Your task to perform on an android device: check battery use Image 0: 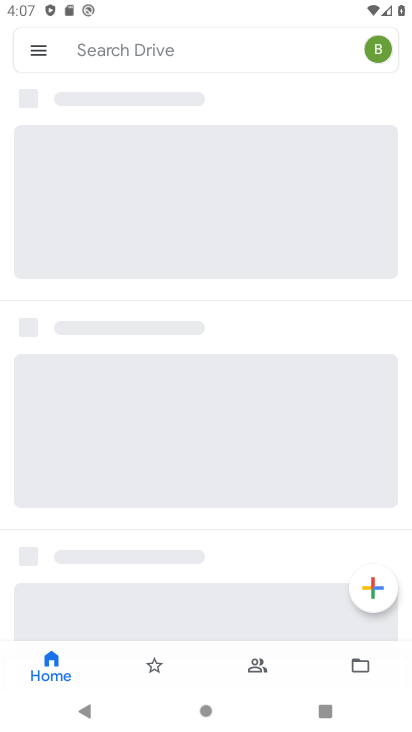
Step 0: press back button
Your task to perform on an android device: check battery use Image 1: 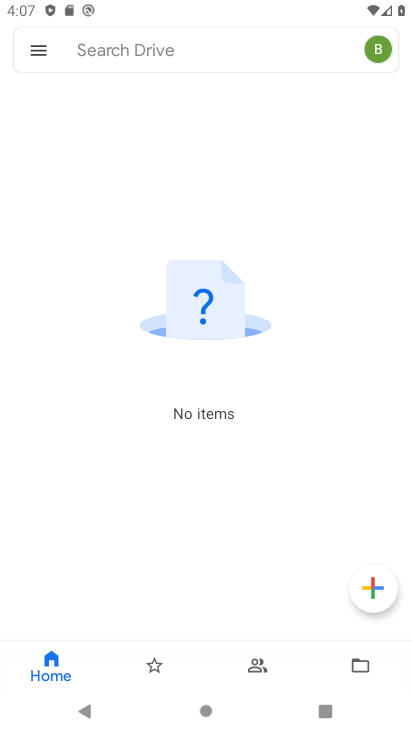
Step 1: press back button
Your task to perform on an android device: check battery use Image 2: 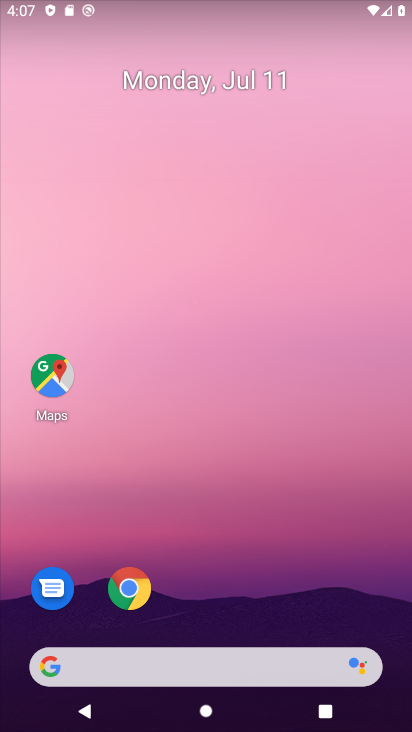
Step 2: press home button
Your task to perform on an android device: check battery use Image 3: 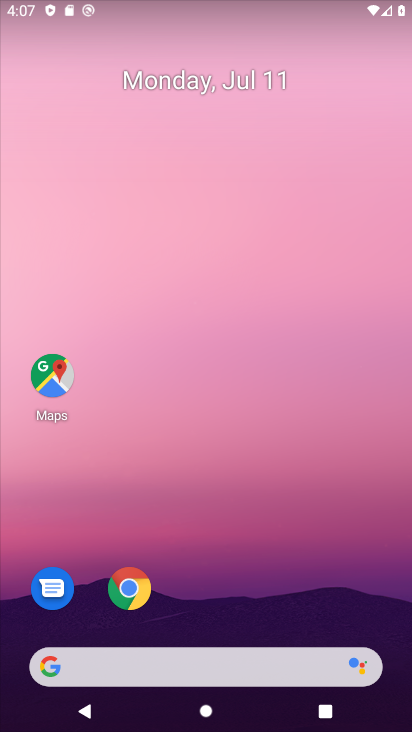
Step 3: drag from (259, 506) to (252, 89)
Your task to perform on an android device: check battery use Image 4: 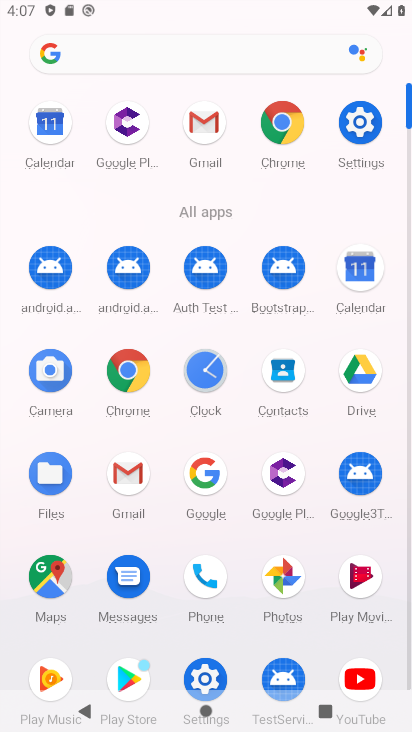
Step 4: click (356, 127)
Your task to perform on an android device: check battery use Image 5: 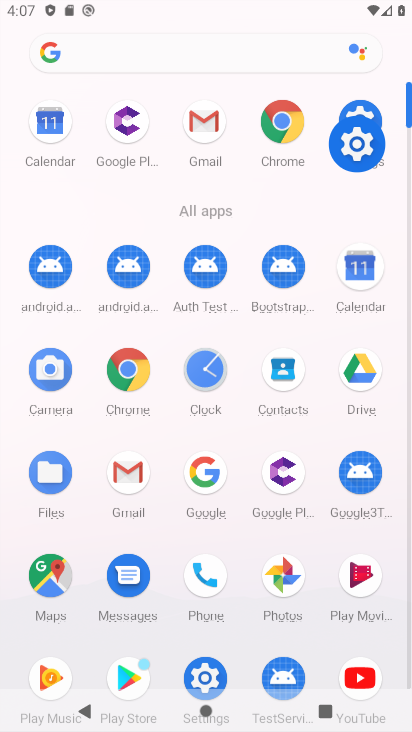
Step 5: click (356, 127)
Your task to perform on an android device: check battery use Image 6: 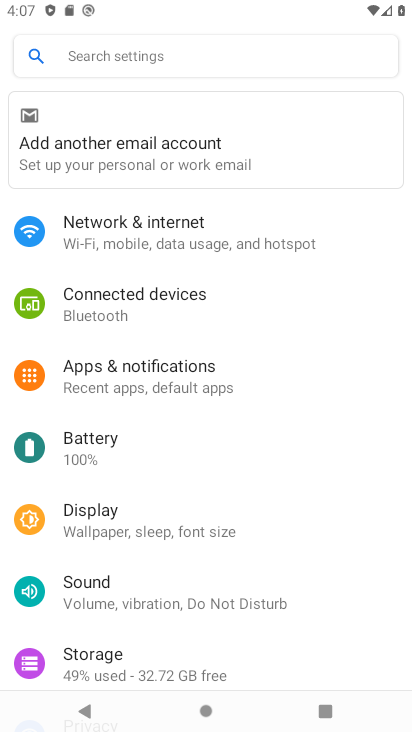
Step 6: click (97, 452)
Your task to perform on an android device: check battery use Image 7: 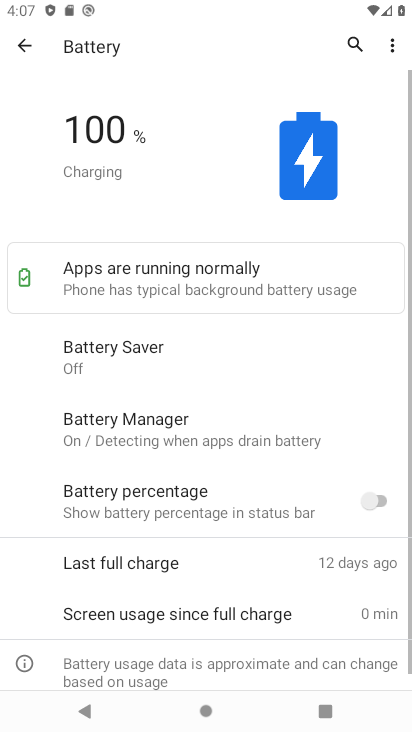
Step 7: task complete